Your task to perform on an android device: change notifications settings Image 0: 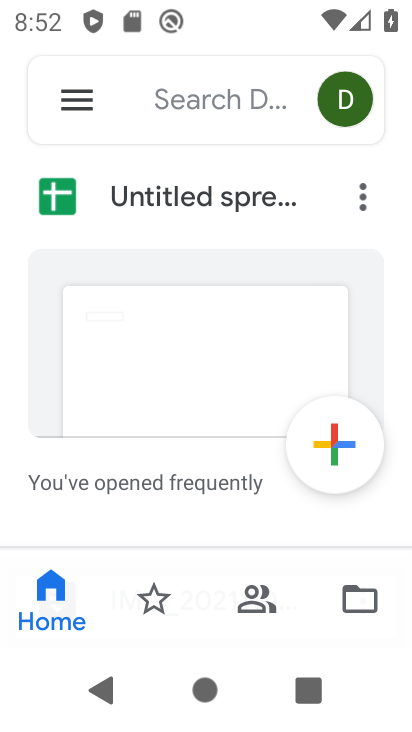
Step 0: press home button
Your task to perform on an android device: change notifications settings Image 1: 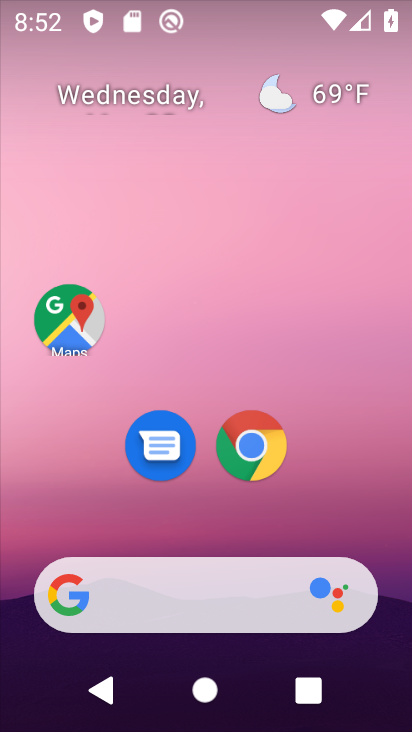
Step 1: drag from (351, 512) to (332, 108)
Your task to perform on an android device: change notifications settings Image 2: 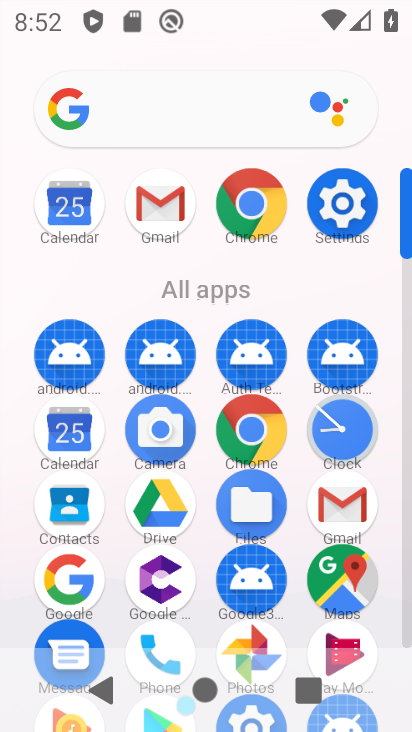
Step 2: click (350, 204)
Your task to perform on an android device: change notifications settings Image 3: 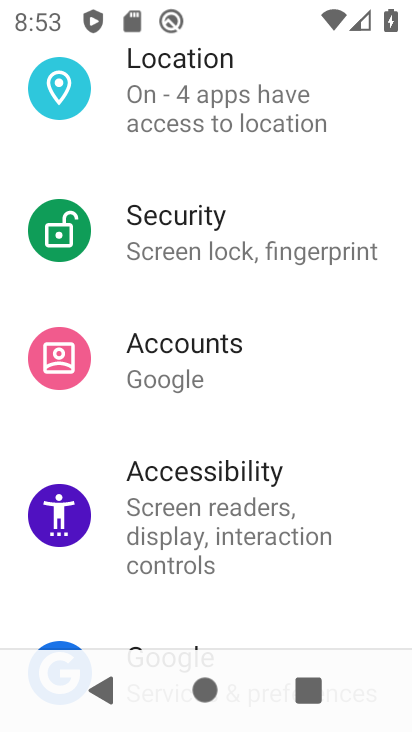
Step 3: drag from (274, 586) to (296, 264)
Your task to perform on an android device: change notifications settings Image 4: 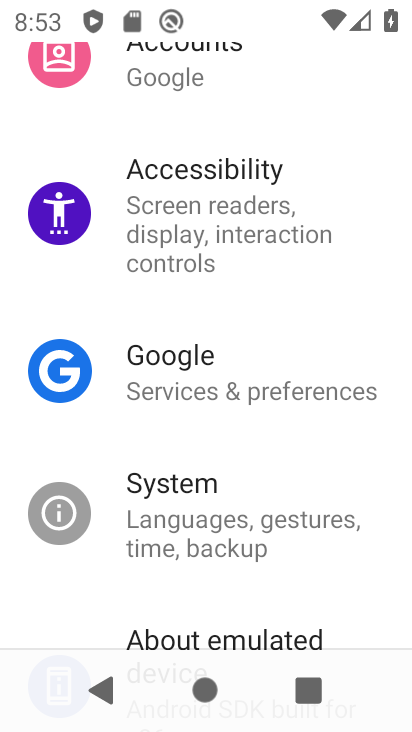
Step 4: drag from (315, 192) to (392, 585)
Your task to perform on an android device: change notifications settings Image 5: 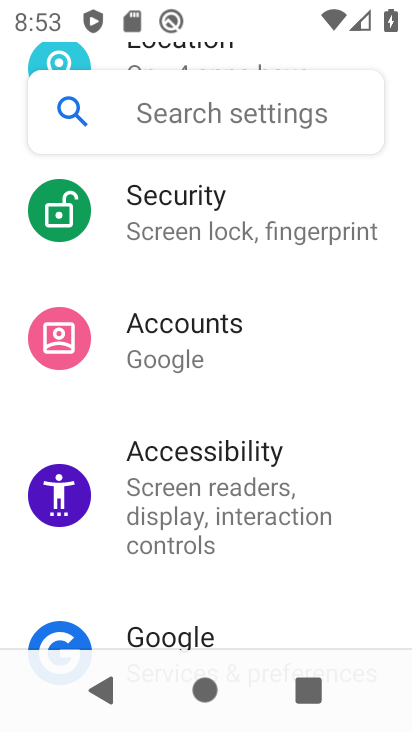
Step 5: drag from (260, 171) to (305, 612)
Your task to perform on an android device: change notifications settings Image 6: 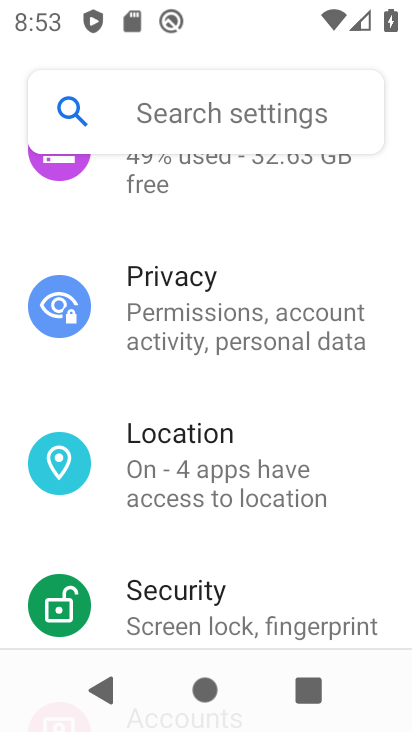
Step 6: drag from (256, 229) to (309, 587)
Your task to perform on an android device: change notifications settings Image 7: 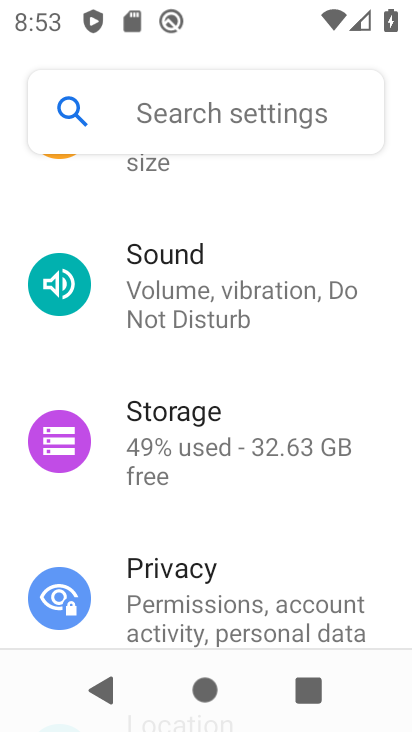
Step 7: drag from (228, 232) to (291, 614)
Your task to perform on an android device: change notifications settings Image 8: 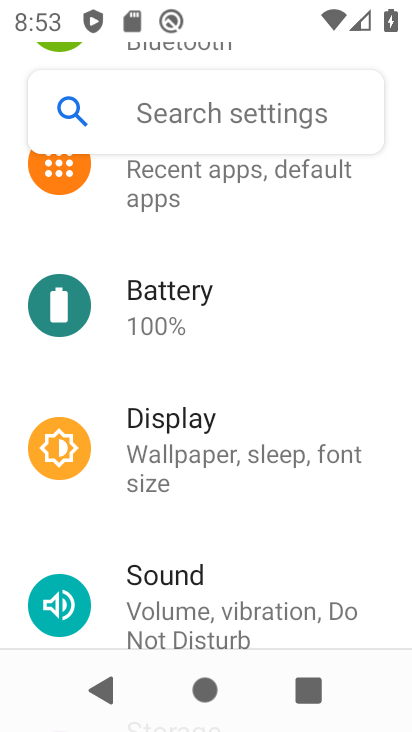
Step 8: drag from (214, 203) to (294, 580)
Your task to perform on an android device: change notifications settings Image 9: 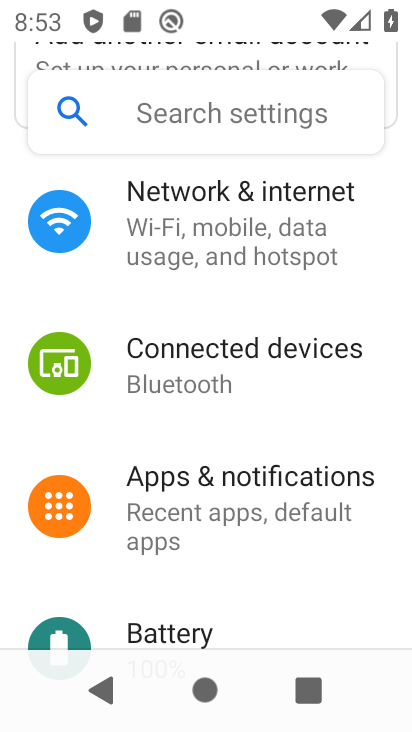
Step 9: drag from (204, 180) to (279, 638)
Your task to perform on an android device: change notifications settings Image 10: 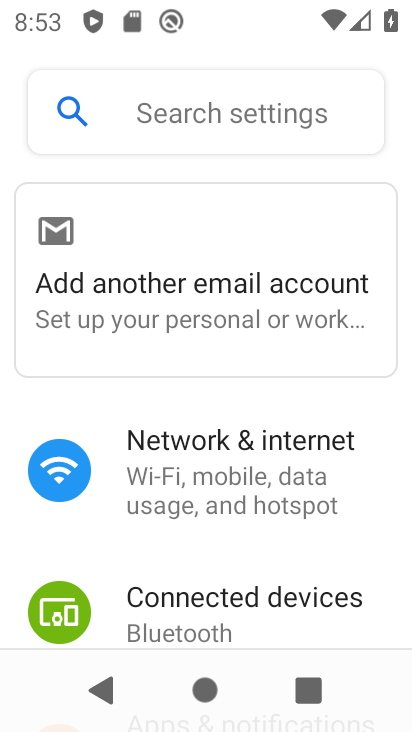
Step 10: drag from (284, 582) to (294, 359)
Your task to perform on an android device: change notifications settings Image 11: 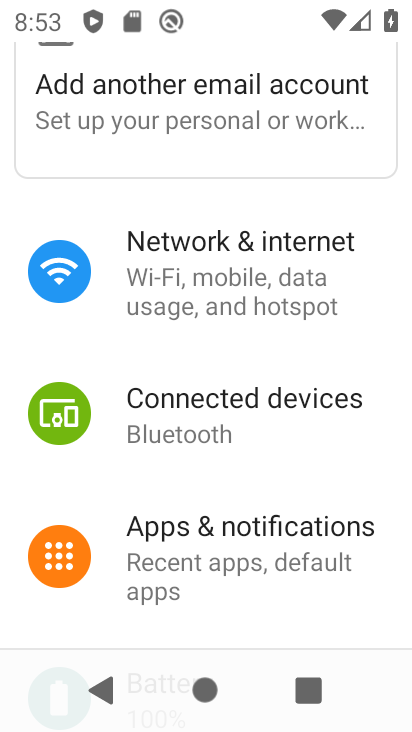
Step 11: click (249, 520)
Your task to perform on an android device: change notifications settings Image 12: 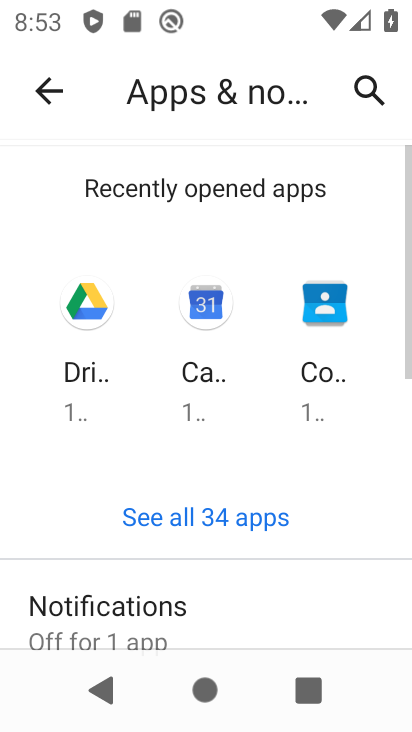
Step 12: drag from (181, 611) to (203, 306)
Your task to perform on an android device: change notifications settings Image 13: 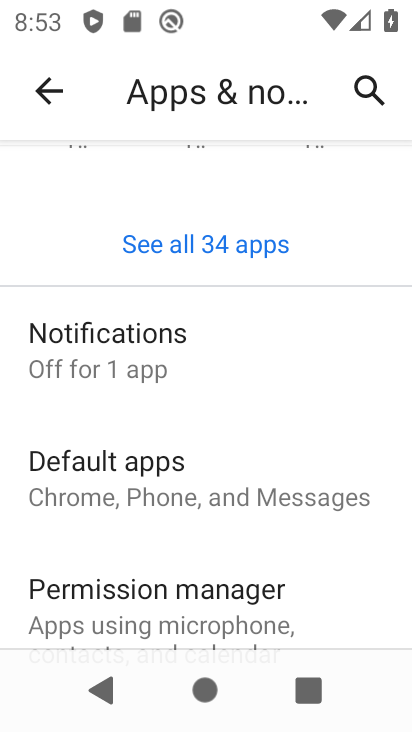
Step 13: click (83, 340)
Your task to perform on an android device: change notifications settings Image 14: 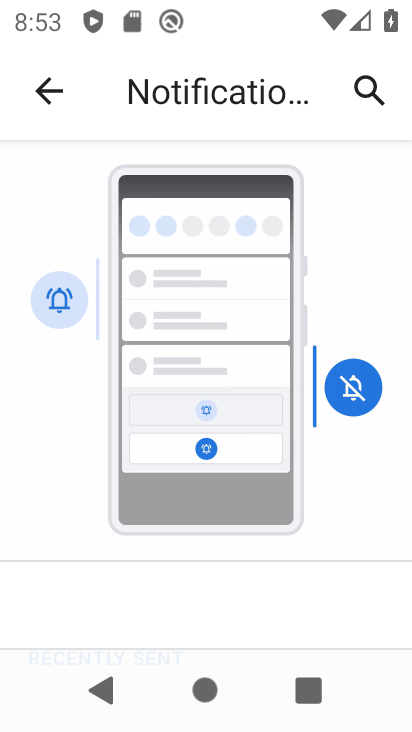
Step 14: drag from (340, 567) to (332, 173)
Your task to perform on an android device: change notifications settings Image 15: 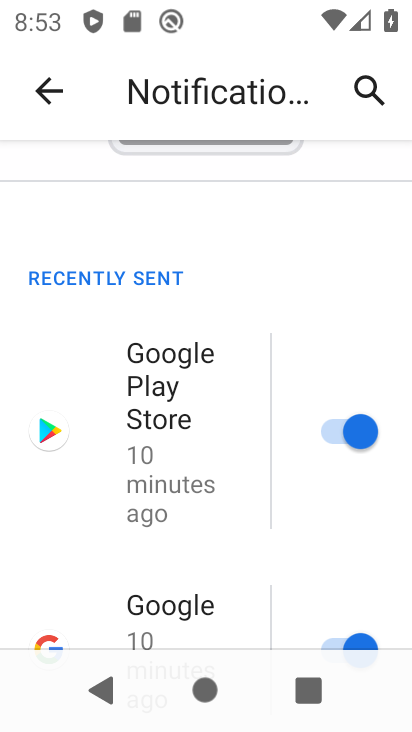
Step 15: drag from (286, 529) to (298, 228)
Your task to perform on an android device: change notifications settings Image 16: 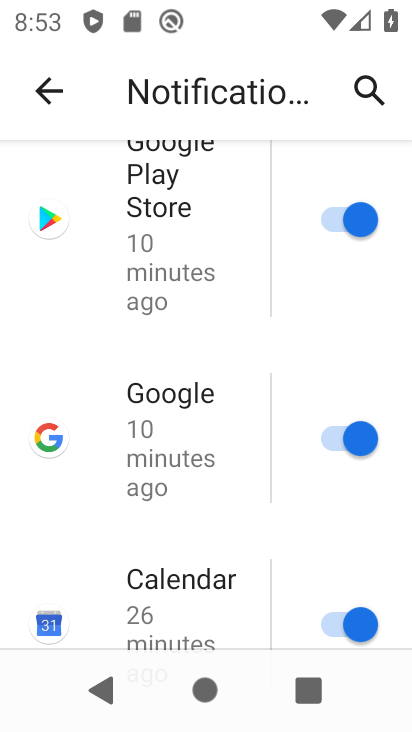
Step 16: click (342, 442)
Your task to perform on an android device: change notifications settings Image 17: 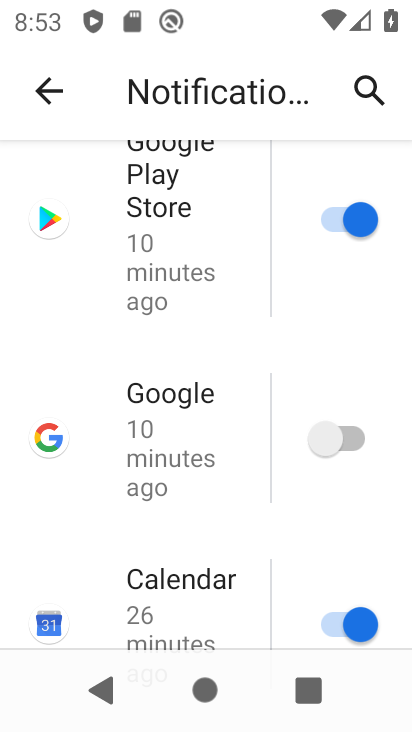
Step 17: task complete